Your task to perform on an android device: Open my contact list Image 0: 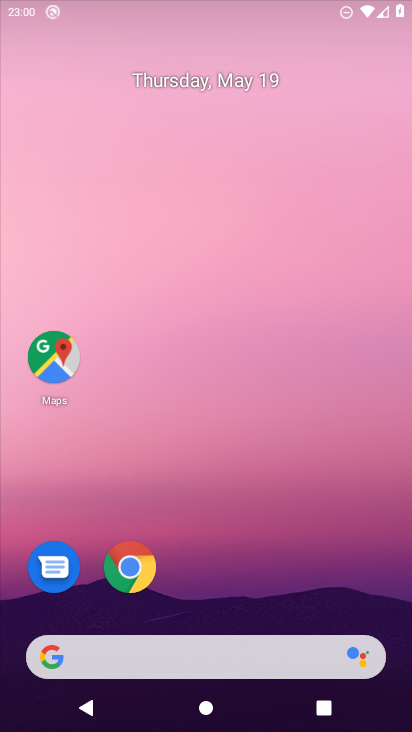
Step 0: press home button
Your task to perform on an android device: Open my contact list Image 1: 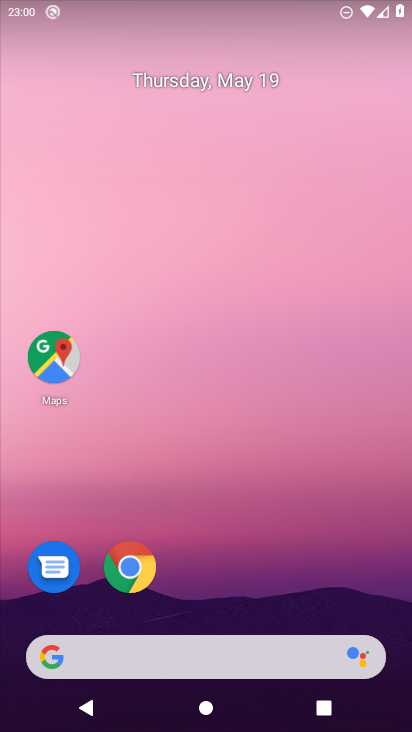
Step 1: drag from (221, 616) to (242, 81)
Your task to perform on an android device: Open my contact list Image 2: 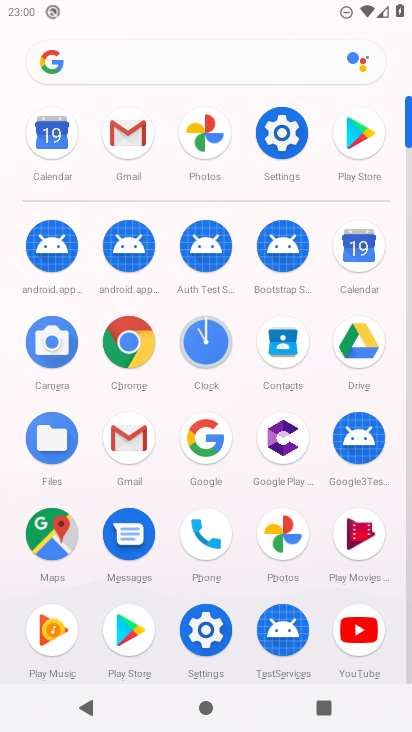
Step 2: click (282, 333)
Your task to perform on an android device: Open my contact list Image 3: 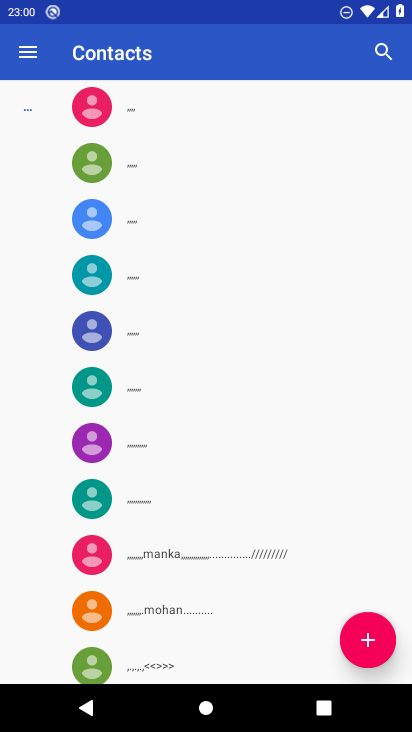
Step 3: task complete